Your task to perform on an android device: Go to Amazon Image 0: 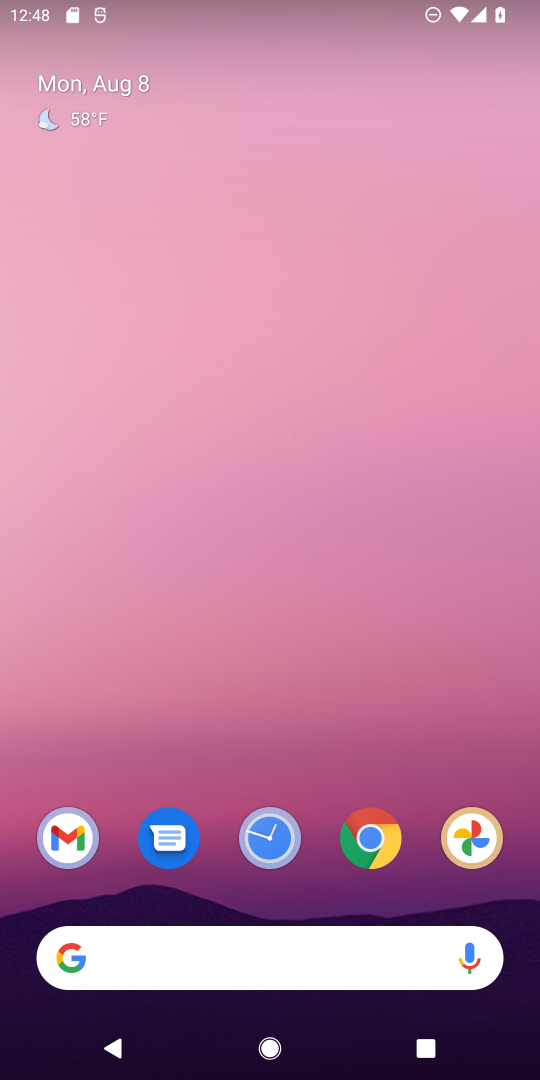
Step 0: press home button
Your task to perform on an android device: Go to Amazon Image 1: 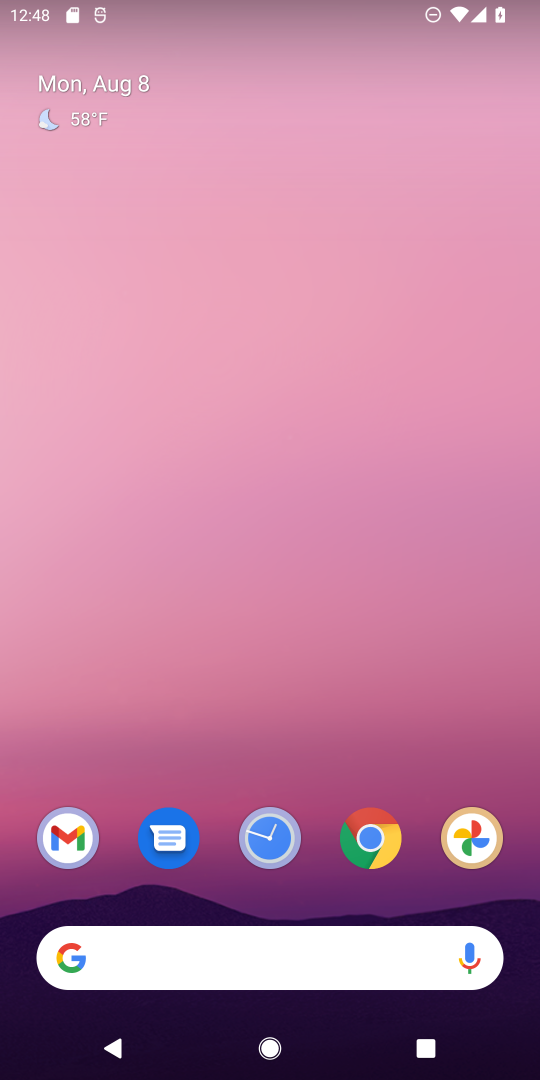
Step 1: click (79, 955)
Your task to perform on an android device: Go to Amazon Image 2: 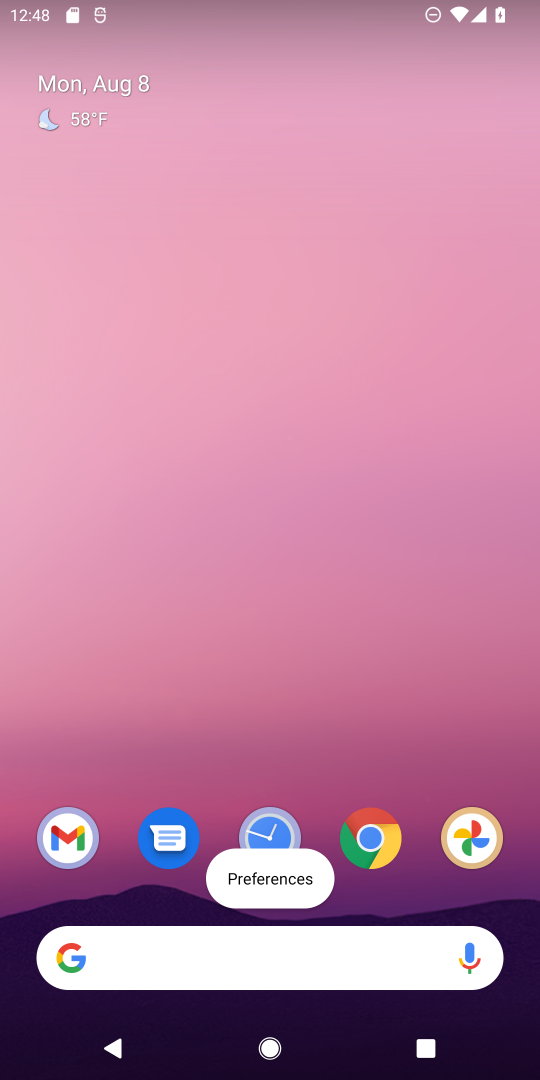
Step 2: click (52, 953)
Your task to perform on an android device: Go to Amazon Image 3: 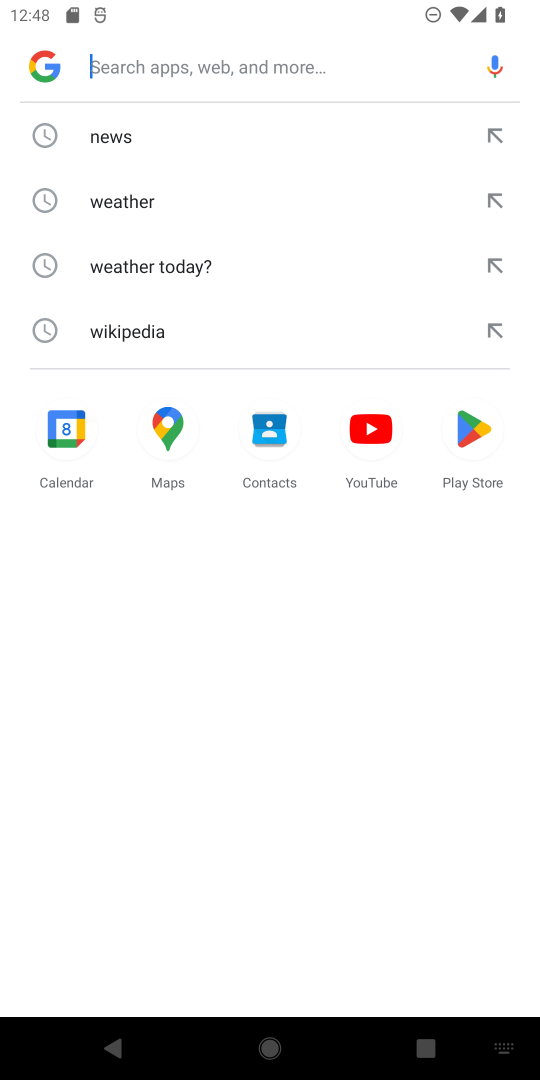
Step 3: type "Amazon"
Your task to perform on an android device: Go to Amazon Image 4: 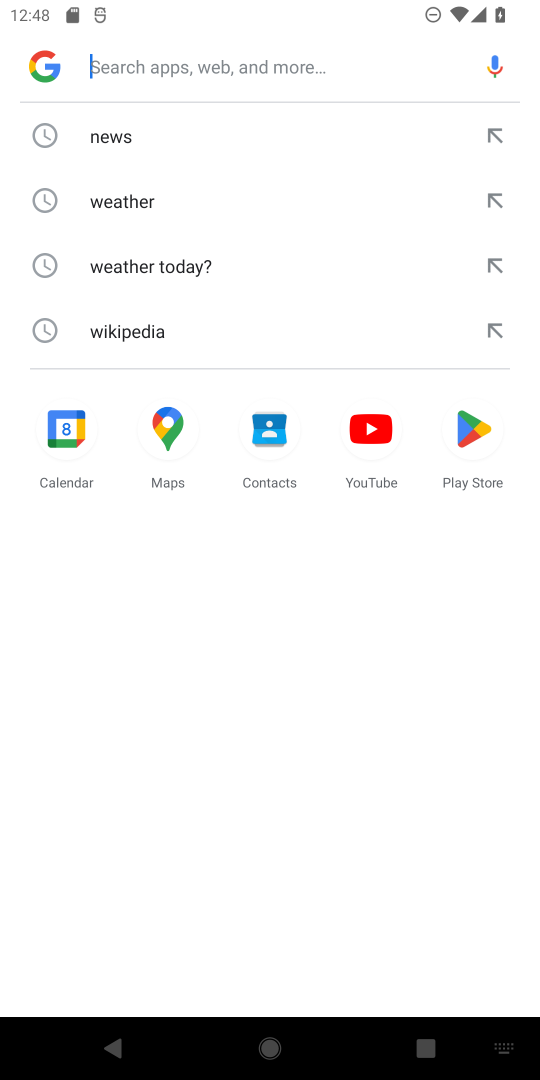
Step 4: click (126, 65)
Your task to perform on an android device: Go to Amazon Image 5: 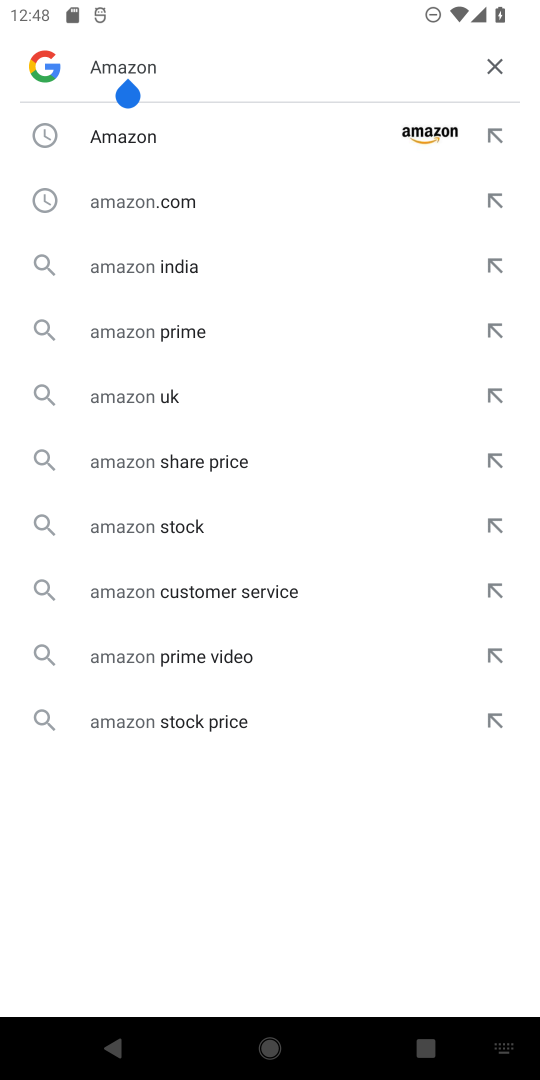
Step 5: click (421, 128)
Your task to perform on an android device: Go to Amazon Image 6: 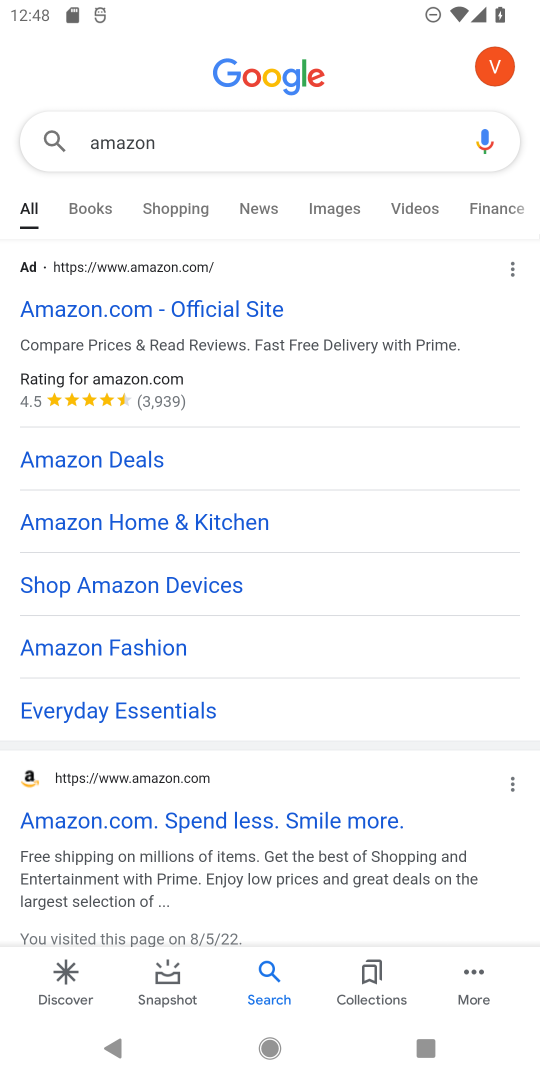
Step 6: click (155, 823)
Your task to perform on an android device: Go to Amazon Image 7: 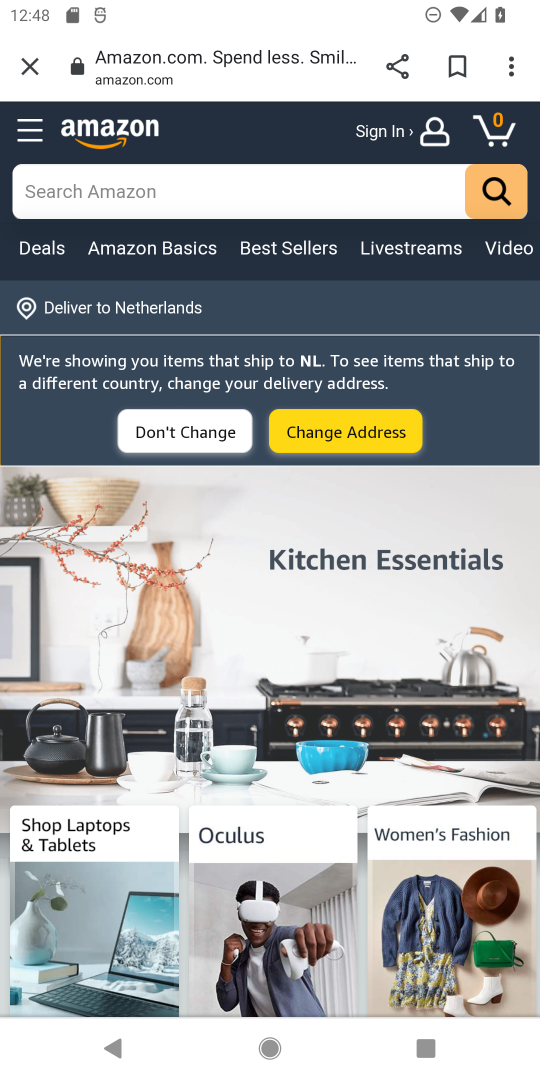
Step 7: task complete